Your task to perform on an android device: What's the weather today? Image 0: 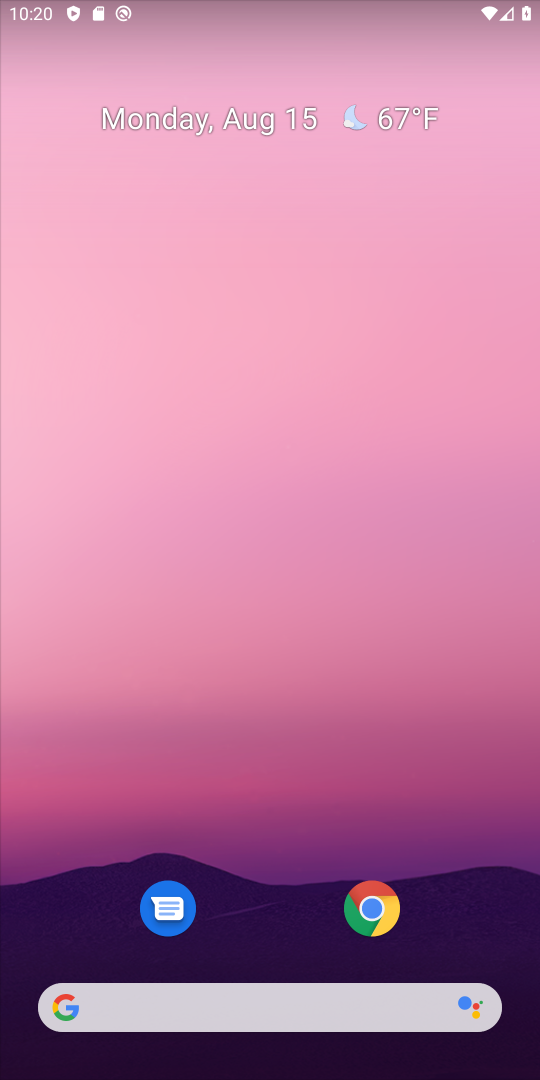
Step 0: click (426, 113)
Your task to perform on an android device: What's the weather today? Image 1: 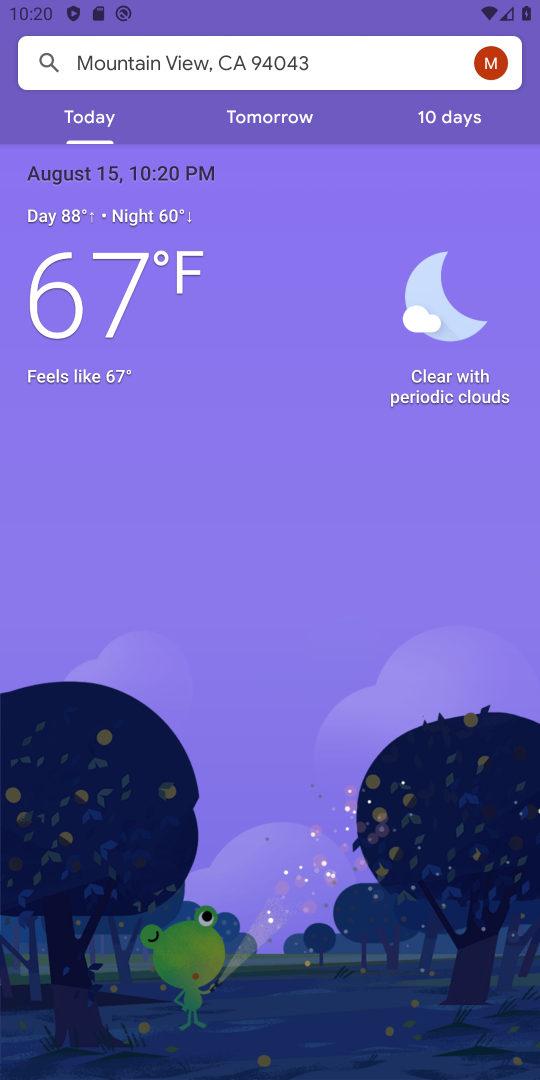
Step 1: task complete